Your task to perform on an android device: Open maps Image 0: 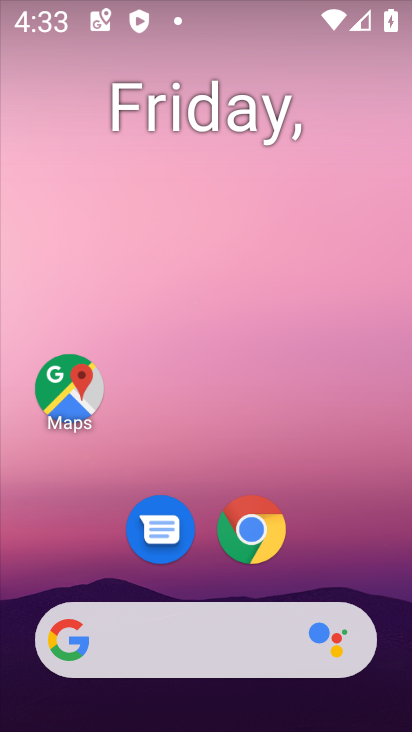
Step 0: click (67, 413)
Your task to perform on an android device: Open maps Image 1: 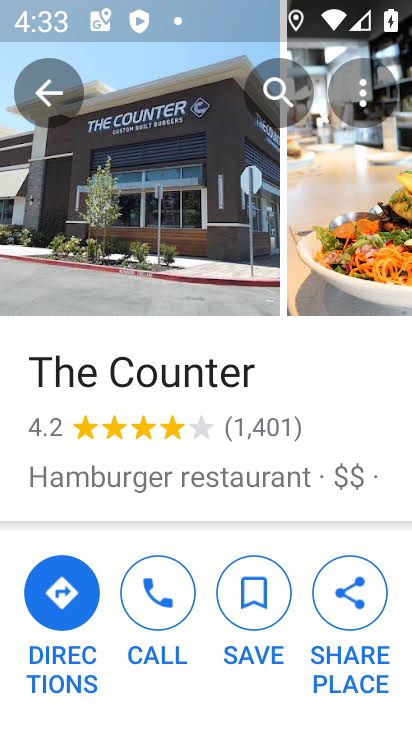
Step 1: task complete